Your task to perform on an android device: Toggle the flashlight Image 0: 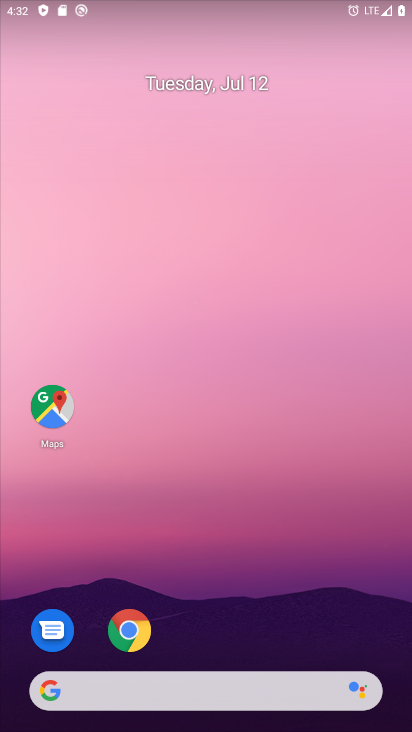
Step 0: drag from (149, 32) to (400, 707)
Your task to perform on an android device: Toggle the flashlight Image 1: 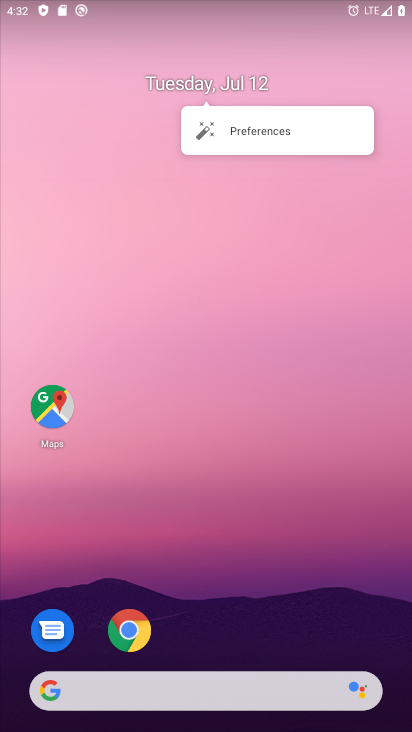
Step 1: task complete